Your task to perform on an android device: open wifi settings Image 0: 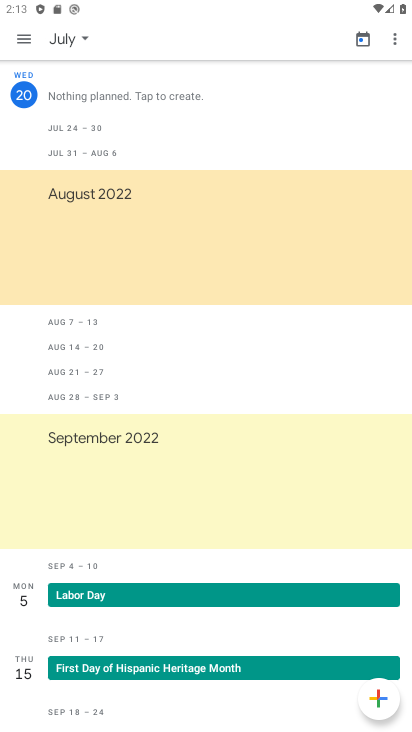
Step 0: press home button
Your task to perform on an android device: open wifi settings Image 1: 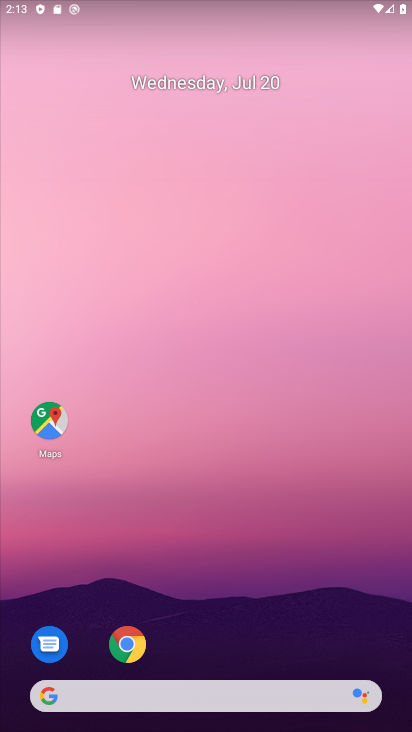
Step 1: drag from (271, 660) to (217, 3)
Your task to perform on an android device: open wifi settings Image 2: 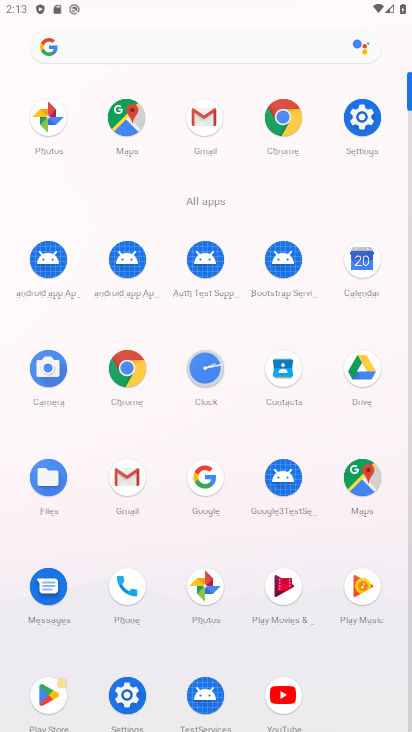
Step 2: click (362, 118)
Your task to perform on an android device: open wifi settings Image 3: 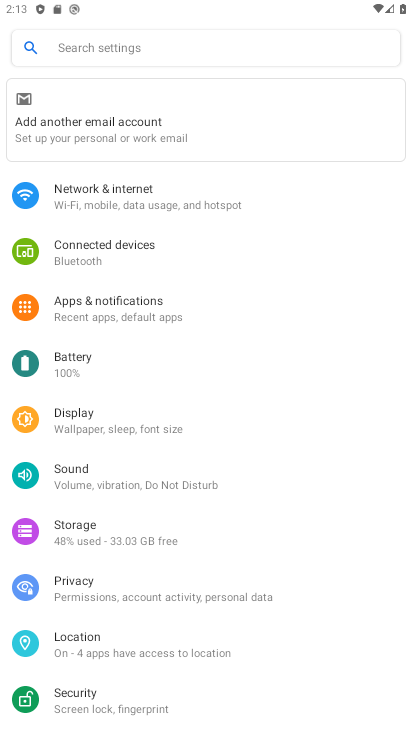
Step 3: click (157, 194)
Your task to perform on an android device: open wifi settings Image 4: 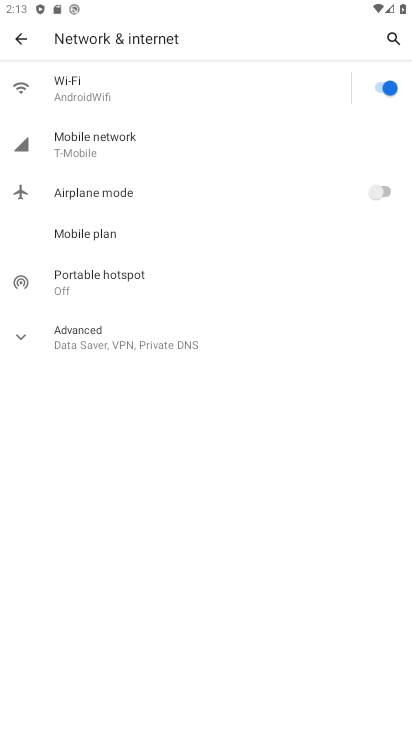
Step 4: click (82, 89)
Your task to perform on an android device: open wifi settings Image 5: 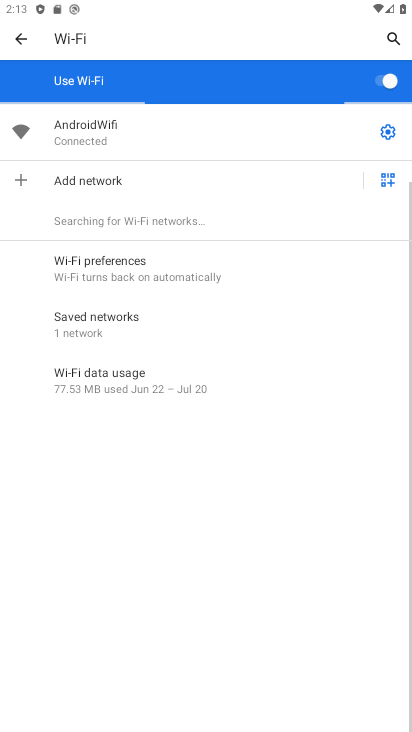
Step 5: task complete